Your task to perform on an android device: change the clock display to show seconds Image 0: 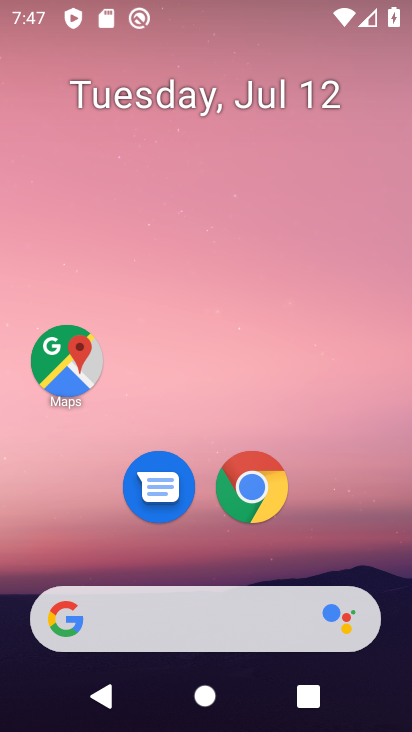
Step 0: click (309, 484)
Your task to perform on an android device: change the clock display to show seconds Image 1: 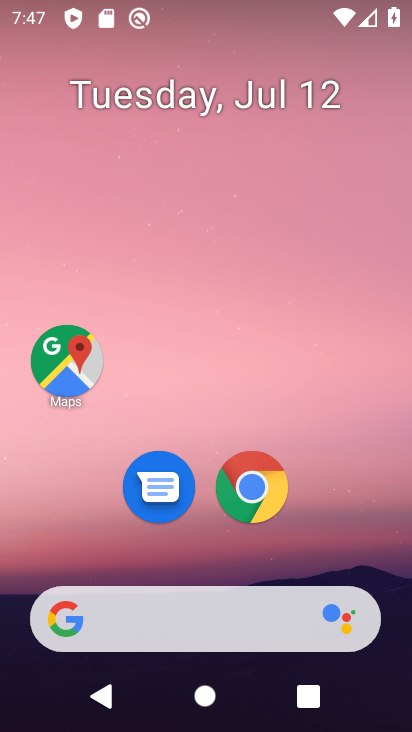
Step 1: drag from (257, 586) to (277, 180)
Your task to perform on an android device: change the clock display to show seconds Image 2: 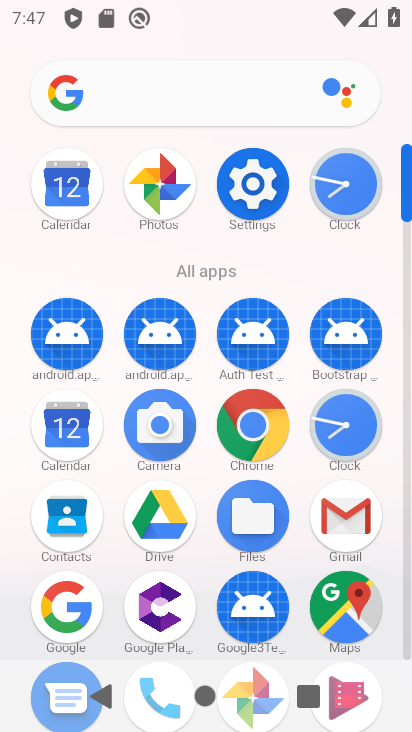
Step 2: click (346, 438)
Your task to perform on an android device: change the clock display to show seconds Image 3: 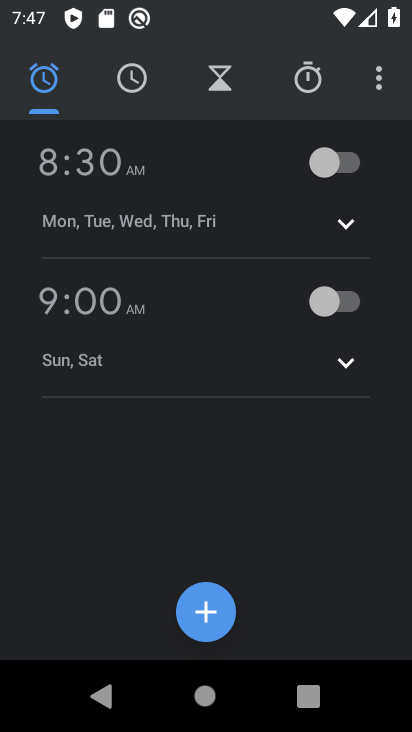
Step 3: click (391, 86)
Your task to perform on an android device: change the clock display to show seconds Image 4: 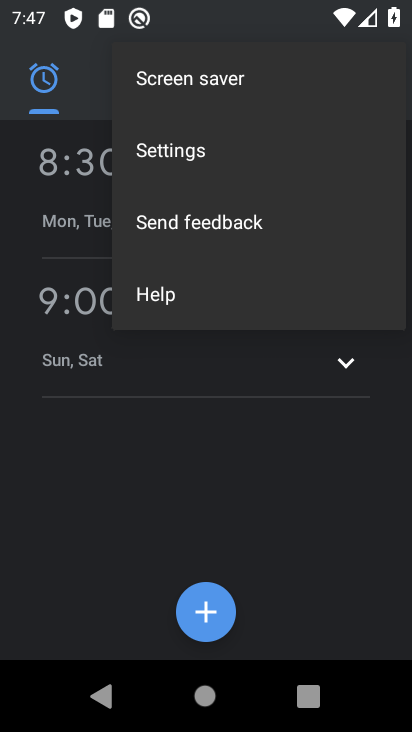
Step 4: click (260, 157)
Your task to perform on an android device: change the clock display to show seconds Image 5: 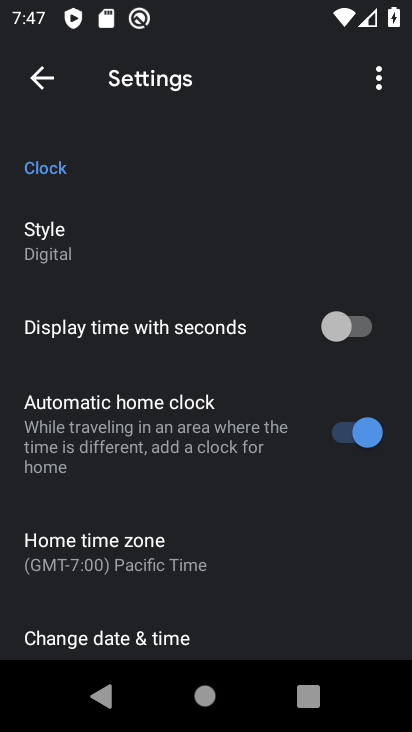
Step 5: click (278, 331)
Your task to perform on an android device: change the clock display to show seconds Image 6: 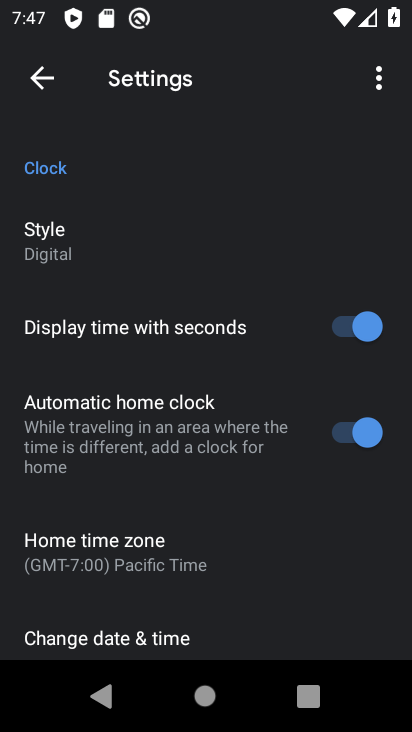
Step 6: task complete